Your task to perform on an android device: What's the weather? Image 0: 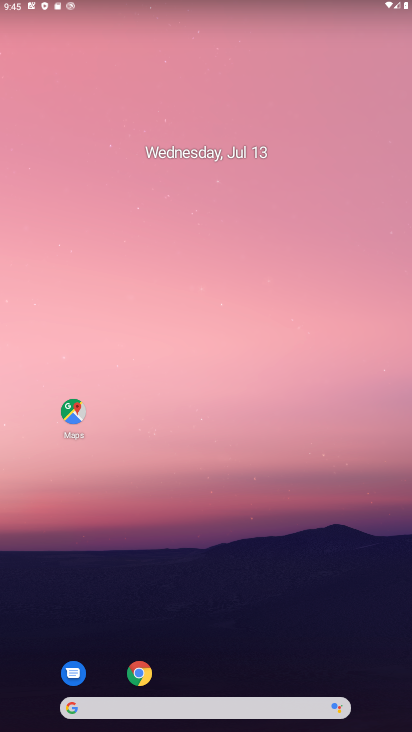
Step 0: click (113, 702)
Your task to perform on an android device: What's the weather? Image 1: 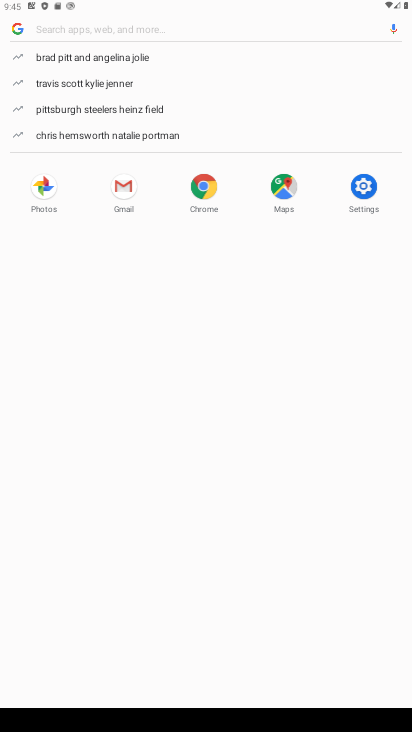
Step 1: type "weather"
Your task to perform on an android device: What's the weather? Image 2: 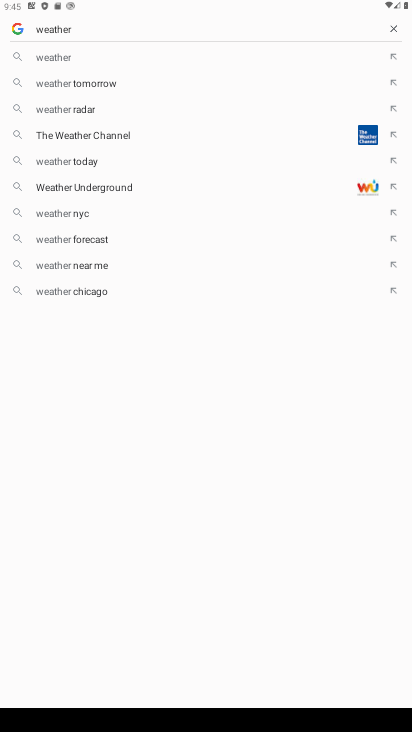
Step 2: click (109, 63)
Your task to perform on an android device: What's the weather? Image 3: 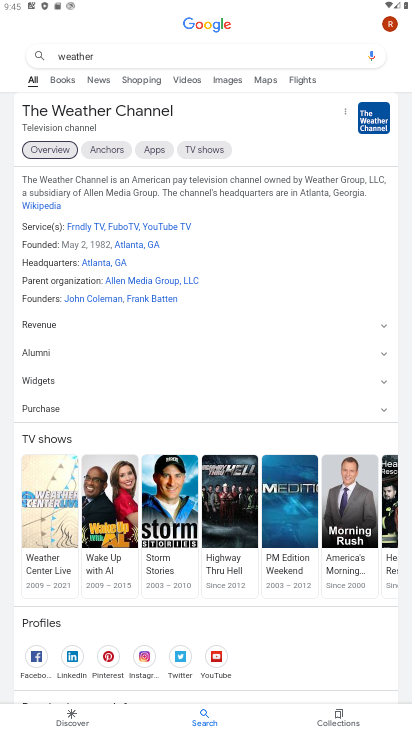
Step 3: task complete